Your task to perform on an android device: choose inbox layout in the gmail app Image 0: 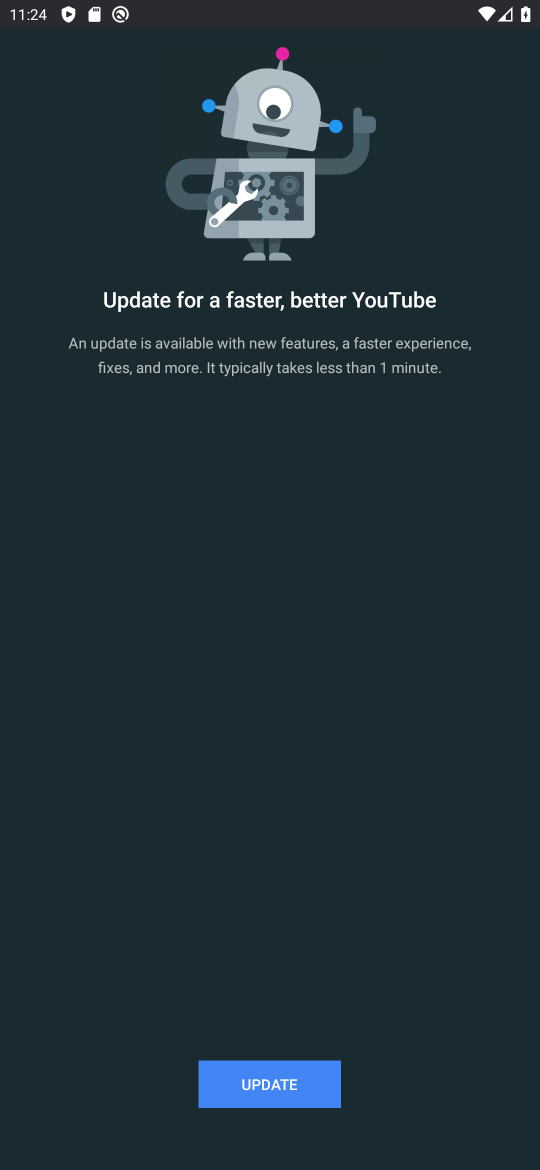
Step 0: task complete